Your task to perform on an android device: Search for vegetarian restaurants on Maps Image 0: 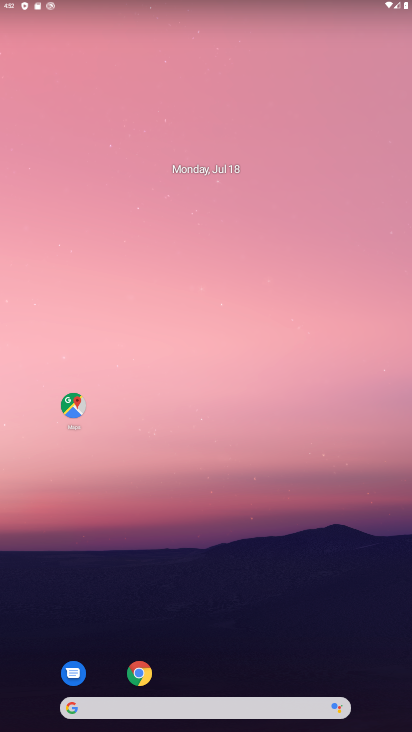
Step 0: drag from (245, 566) to (100, 92)
Your task to perform on an android device: Search for vegetarian restaurants on Maps Image 1: 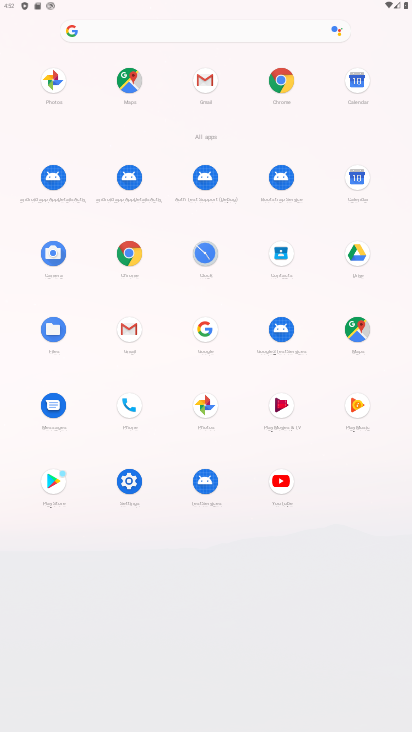
Step 1: click (361, 336)
Your task to perform on an android device: Search for vegetarian restaurants on Maps Image 2: 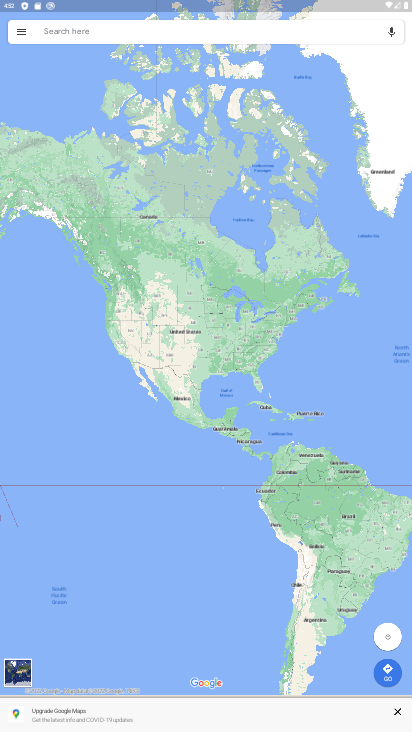
Step 2: click (102, 39)
Your task to perform on an android device: Search for vegetarian restaurants on Maps Image 3: 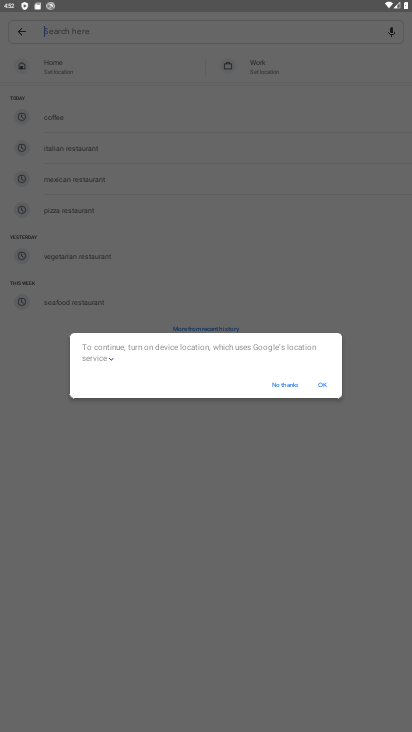
Step 3: click (276, 386)
Your task to perform on an android device: Search for vegetarian restaurants on Maps Image 4: 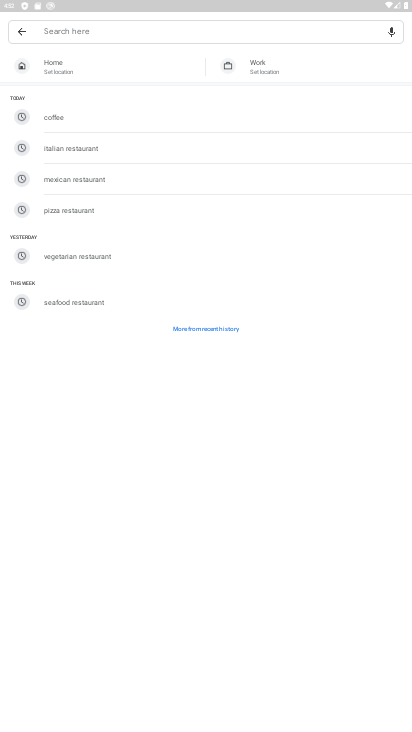
Step 4: click (103, 256)
Your task to perform on an android device: Search for vegetarian restaurants on Maps Image 5: 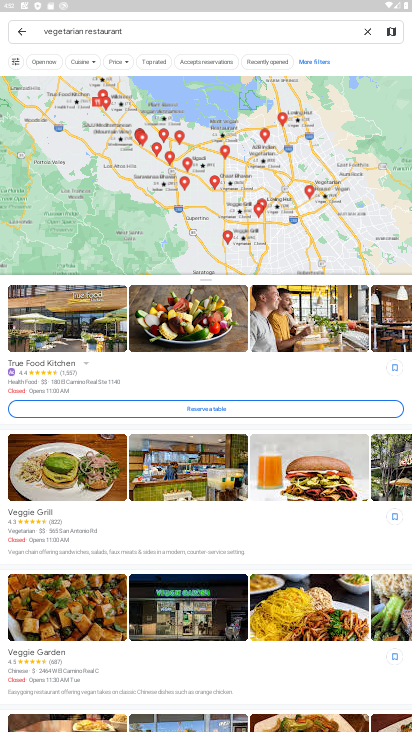
Step 5: task complete